Your task to perform on an android device: toggle sleep mode Image 0: 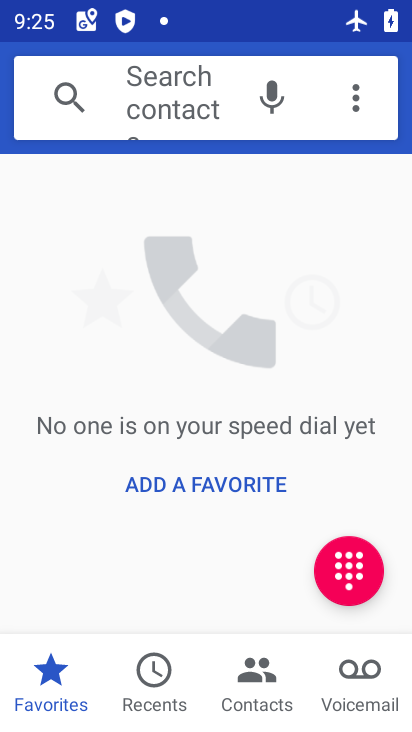
Step 0: press home button
Your task to perform on an android device: toggle sleep mode Image 1: 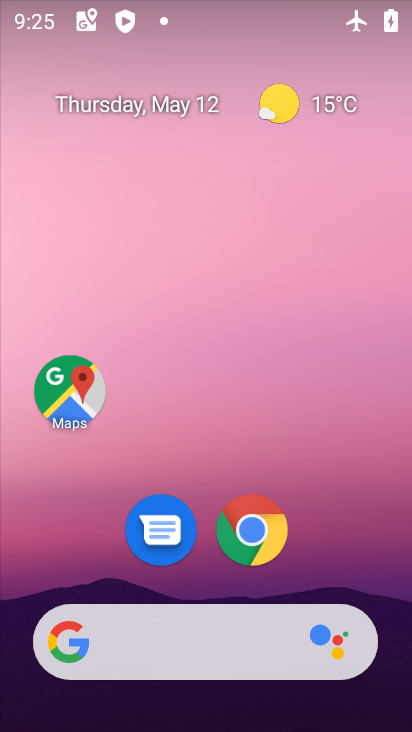
Step 1: drag from (223, 708) to (212, 67)
Your task to perform on an android device: toggle sleep mode Image 2: 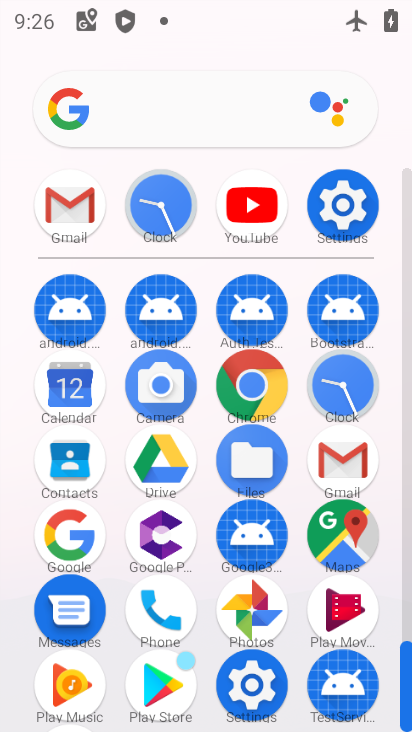
Step 2: click (337, 213)
Your task to perform on an android device: toggle sleep mode Image 3: 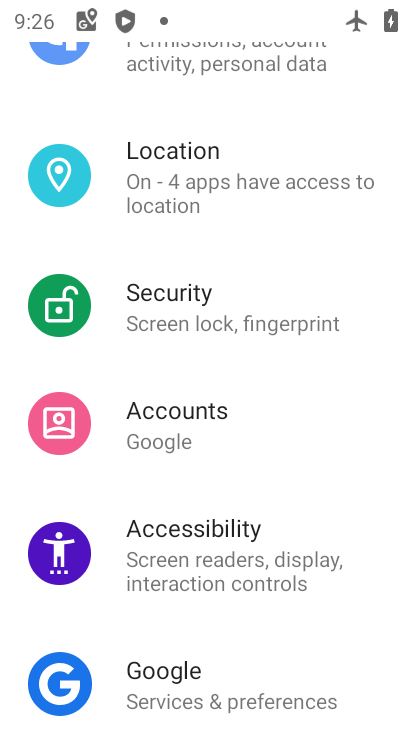
Step 3: drag from (303, 151) to (298, 596)
Your task to perform on an android device: toggle sleep mode Image 4: 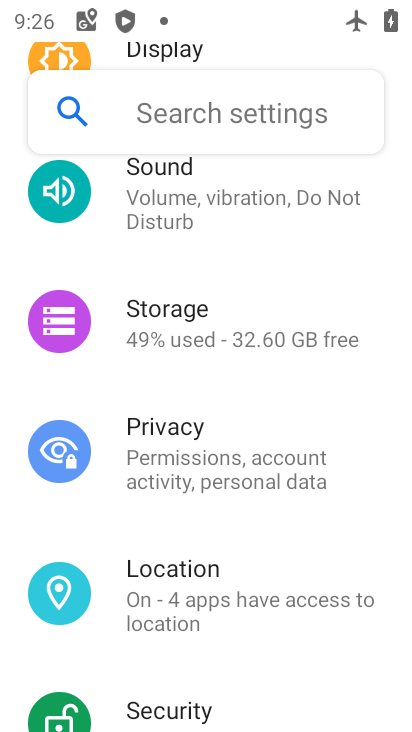
Step 4: drag from (314, 253) to (299, 605)
Your task to perform on an android device: toggle sleep mode Image 5: 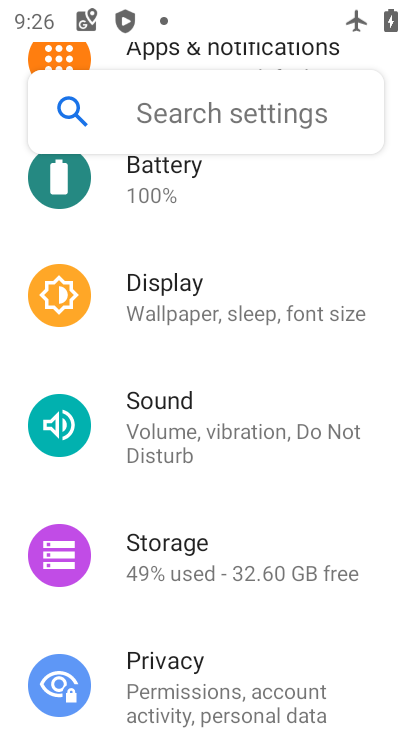
Step 5: drag from (277, 233) to (251, 680)
Your task to perform on an android device: toggle sleep mode Image 6: 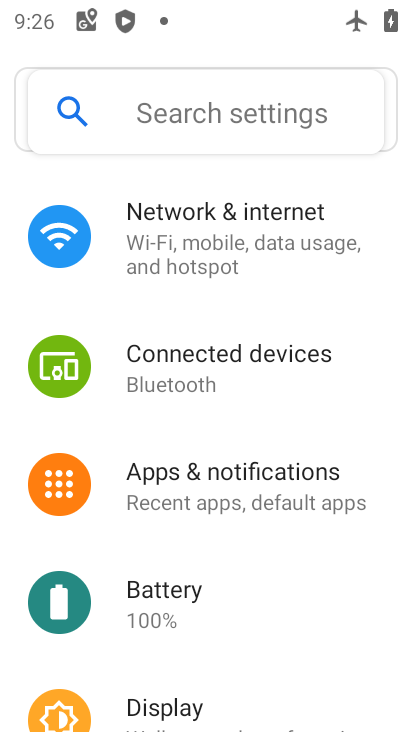
Step 6: drag from (322, 678) to (267, 305)
Your task to perform on an android device: toggle sleep mode Image 7: 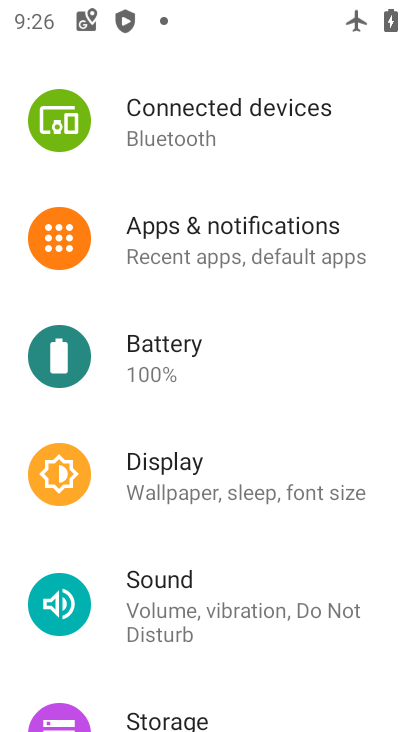
Step 7: click (245, 480)
Your task to perform on an android device: toggle sleep mode Image 8: 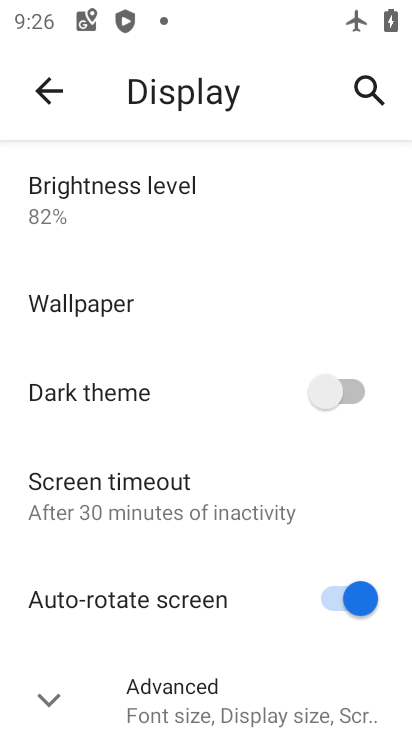
Step 8: task complete